Your task to perform on an android device: find photos in the google photos app Image 0: 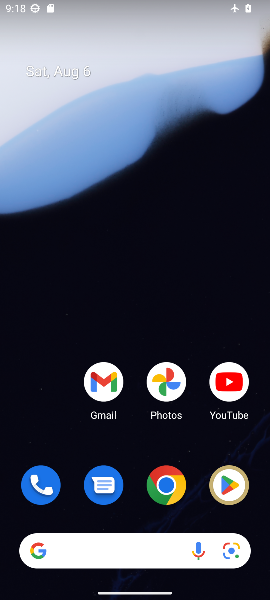
Step 0: drag from (204, 449) to (173, 0)
Your task to perform on an android device: find photos in the google photos app Image 1: 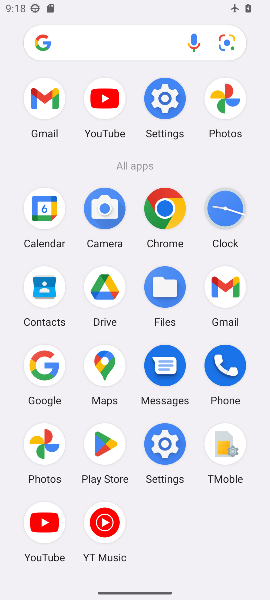
Step 1: click (54, 437)
Your task to perform on an android device: find photos in the google photos app Image 2: 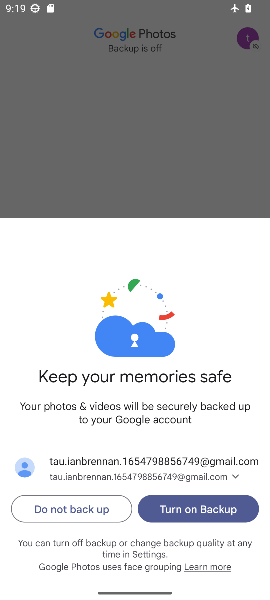
Step 2: click (196, 504)
Your task to perform on an android device: find photos in the google photos app Image 3: 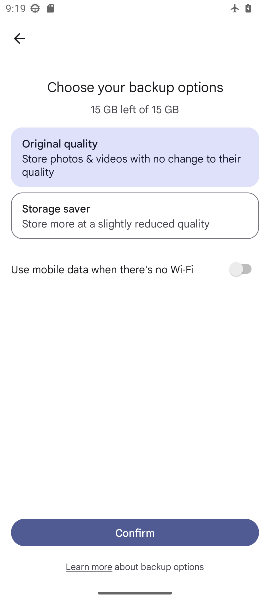
Step 3: click (166, 537)
Your task to perform on an android device: find photos in the google photos app Image 4: 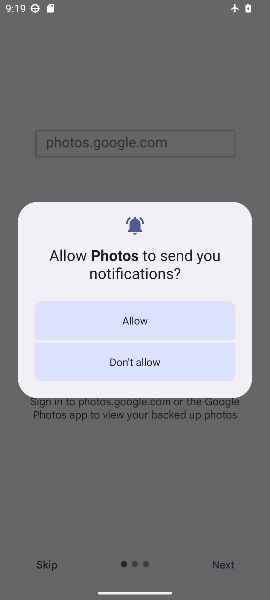
Step 4: click (158, 371)
Your task to perform on an android device: find photos in the google photos app Image 5: 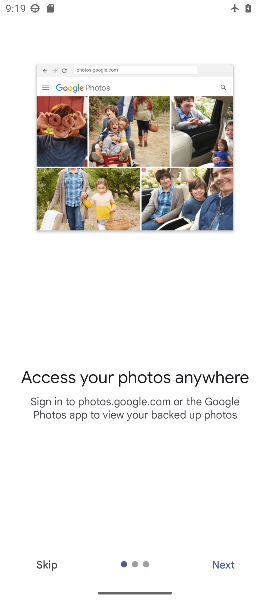
Step 5: click (219, 559)
Your task to perform on an android device: find photos in the google photos app Image 6: 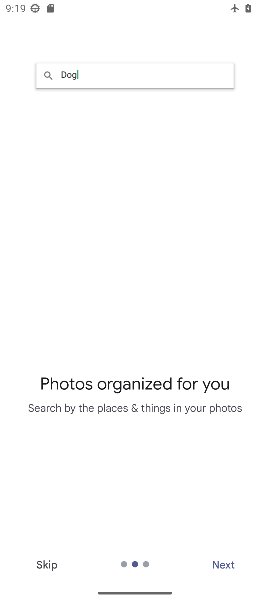
Step 6: click (219, 559)
Your task to perform on an android device: find photos in the google photos app Image 7: 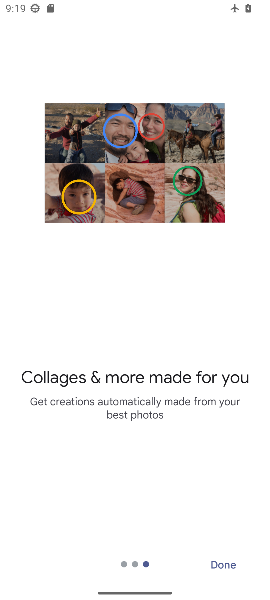
Step 7: click (219, 559)
Your task to perform on an android device: find photos in the google photos app Image 8: 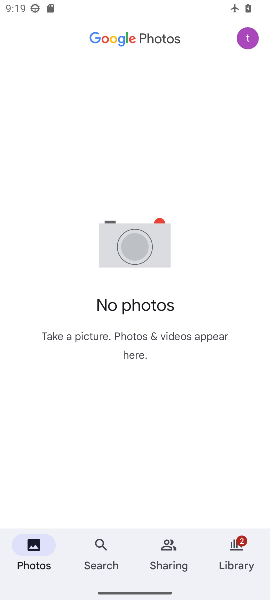
Step 8: task complete